Your task to perform on an android device: toggle notifications settings in the gmail app Image 0: 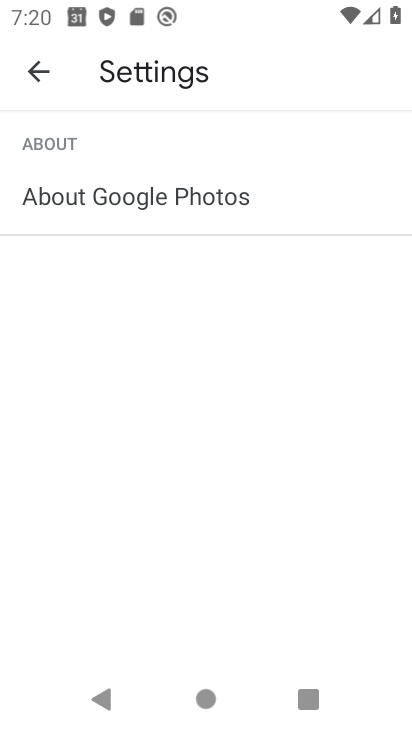
Step 0: press home button
Your task to perform on an android device: toggle notifications settings in the gmail app Image 1: 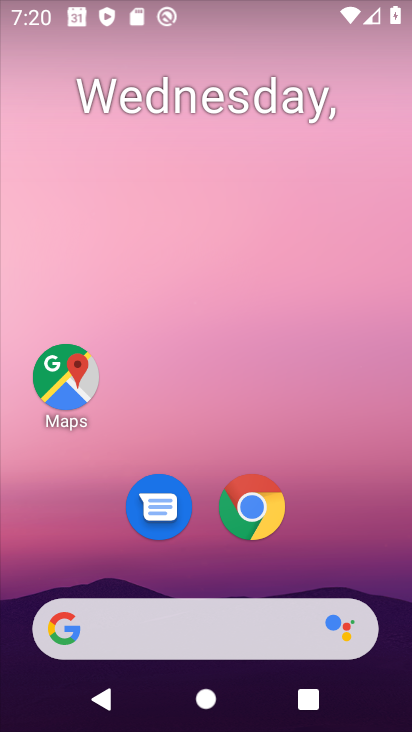
Step 1: drag from (234, 671) to (279, 236)
Your task to perform on an android device: toggle notifications settings in the gmail app Image 2: 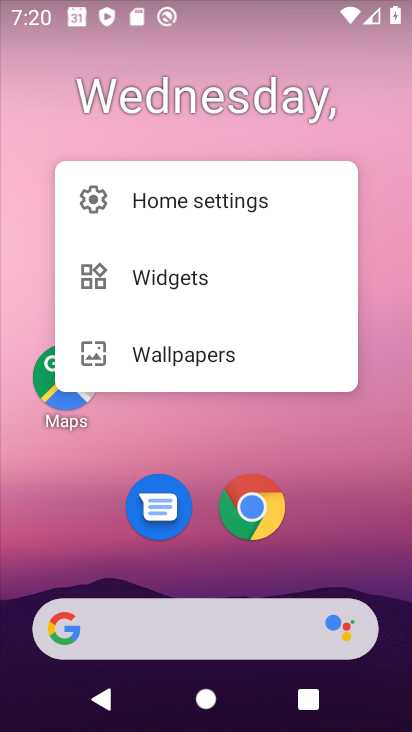
Step 2: click (368, 422)
Your task to perform on an android device: toggle notifications settings in the gmail app Image 3: 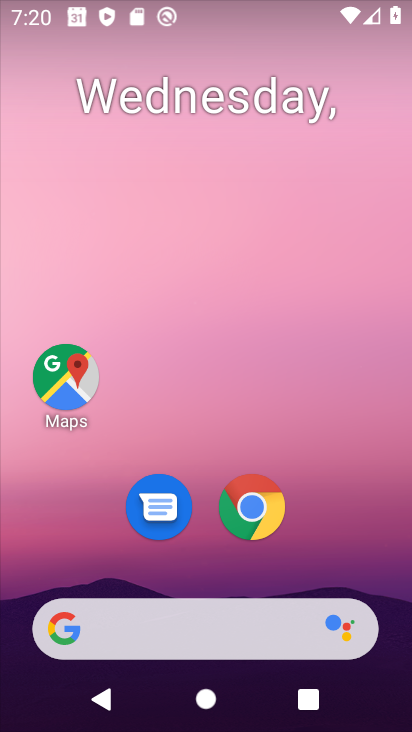
Step 3: drag from (232, 663) to (242, 282)
Your task to perform on an android device: toggle notifications settings in the gmail app Image 4: 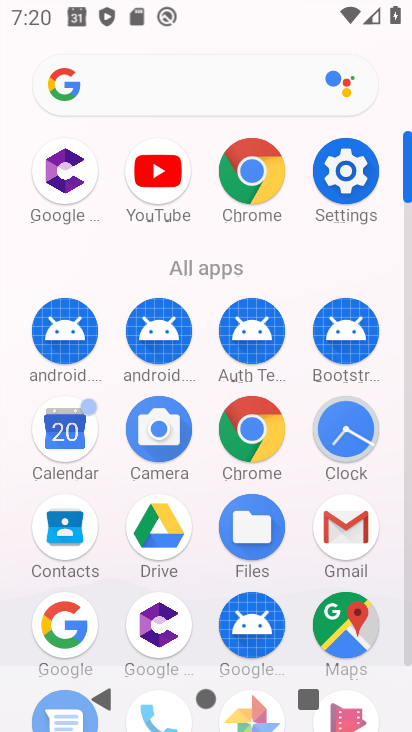
Step 4: click (351, 504)
Your task to perform on an android device: toggle notifications settings in the gmail app Image 5: 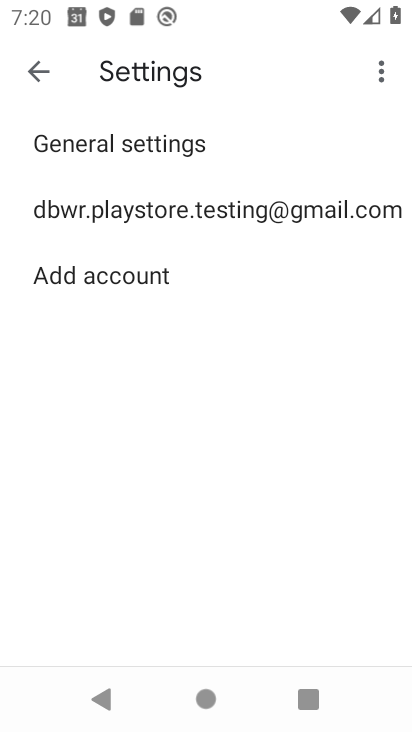
Step 5: click (217, 226)
Your task to perform on an android device: toggle notifications settings in the gmail app Image 6: 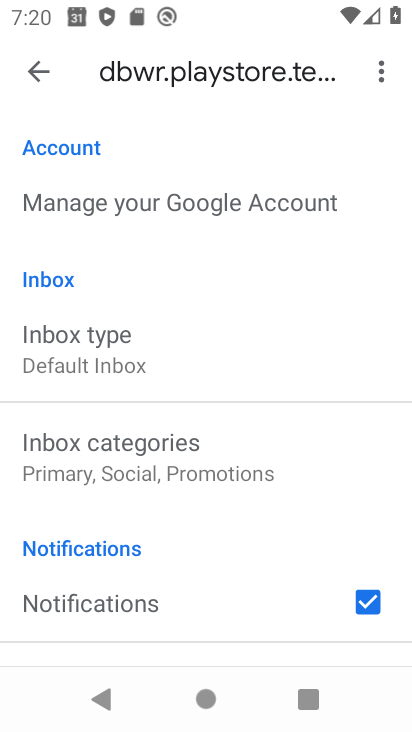
Step 6: drag from (123, 558) to (142, 438)
Your task to perform on an android device: toggle notifications settings in the gmail app Image 7: 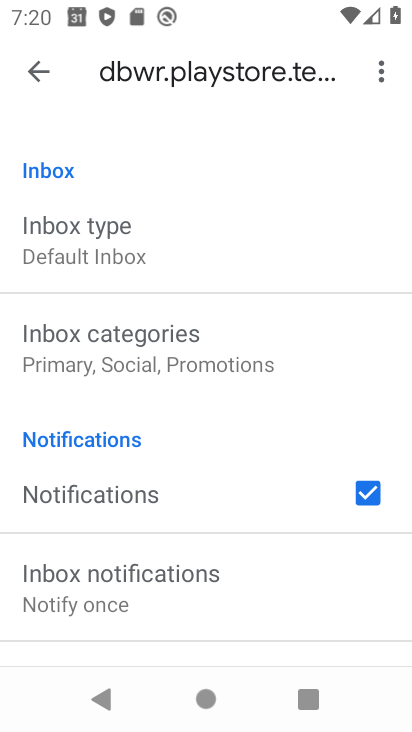
Step 7: click (86, 495)
Your task to perform on an android device: toggle notifications settings in the gmail app Image 8: 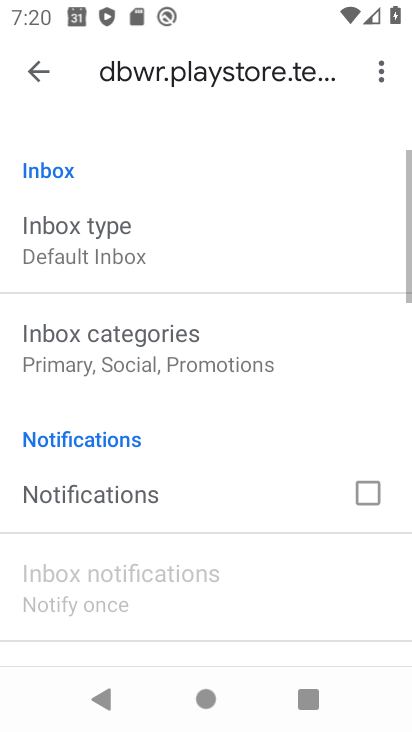
Step 8: task complete